Your task to perform on an android device: Show me popular games on the Play Store Image 0: 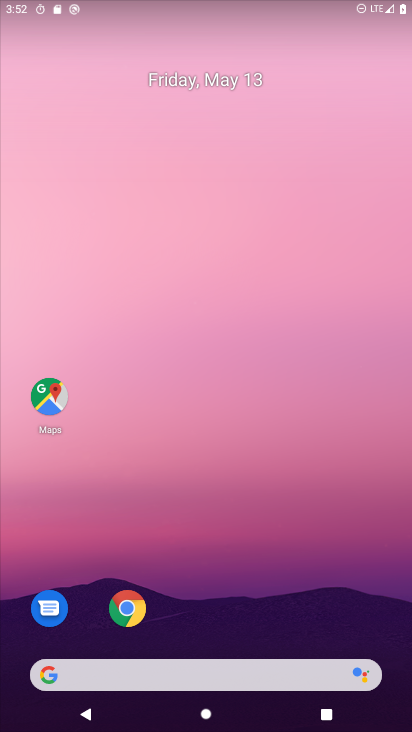
Step 0: drag from (226, 604) to (239, 124)
Your task to perform on an android device: Show me popular games on the Play Store Image 1: 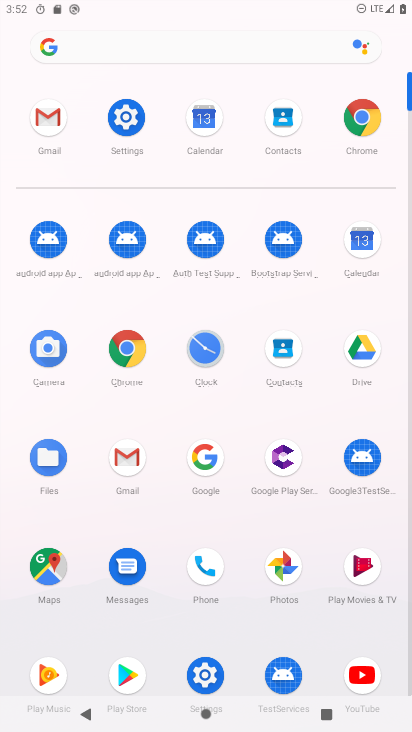
Step 1: drag from (249, 176) to (285, 11)
Your task to perform on an android device: Show me popular games on the Play Store Image 2: 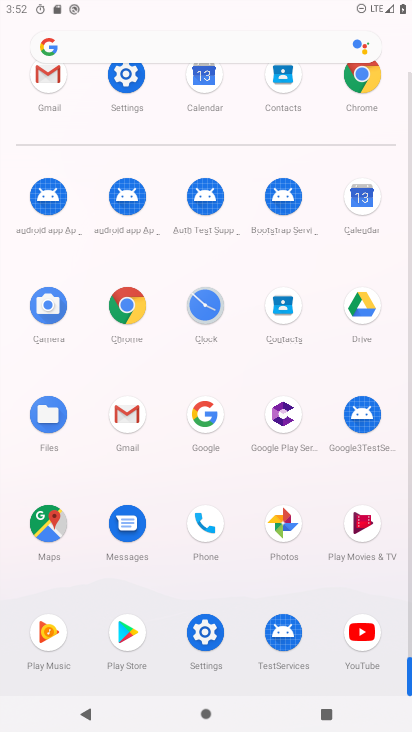
Step 2: click (114, 623)
Your task to perform on an android device: Show me popular games on the Play Store Image 3: 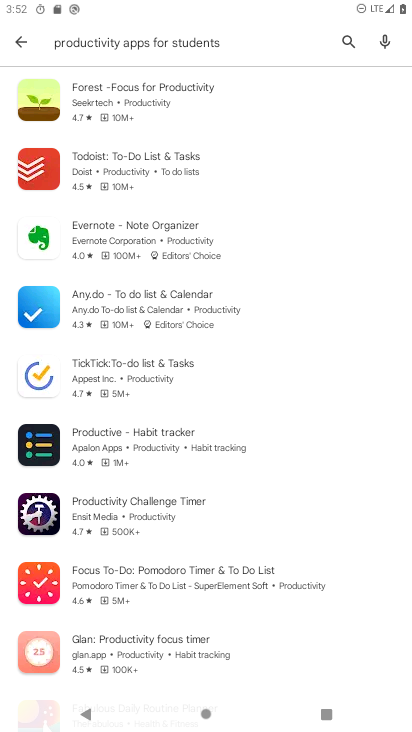
Step 3: click (267, 49)
Your task to perform on an android device: Show me popular games on the Play Store Image 4: 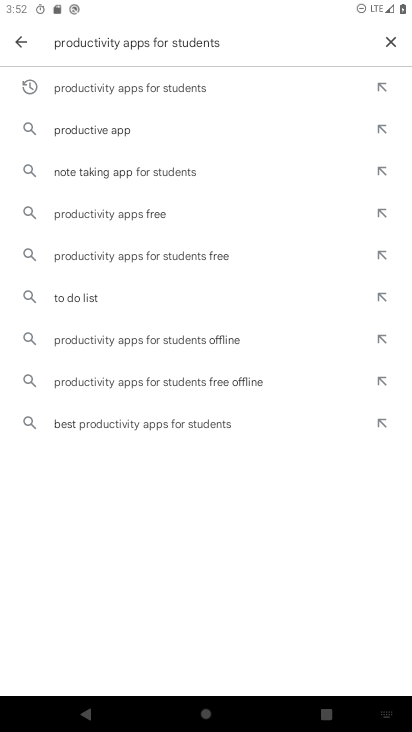
Step 4: click (394, 40)
Your task to perform on an android device: Show me popular games on the Play Store Image 5: 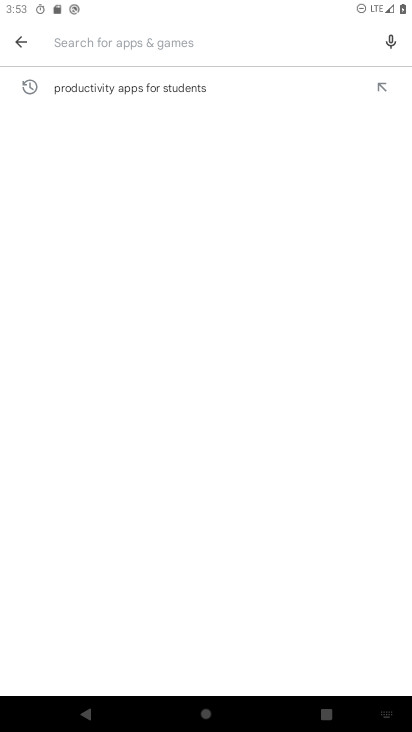
Step 5: type "Show me popular games on the Play Store"
Your task to perform on an android device: Show me popular games on the Play Store Image 6: 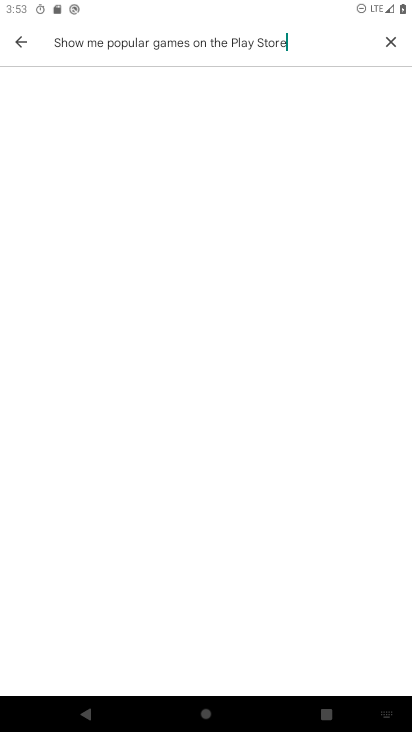
Step 6: task complete